Your task to perform on an android device: check google app version Image 0: 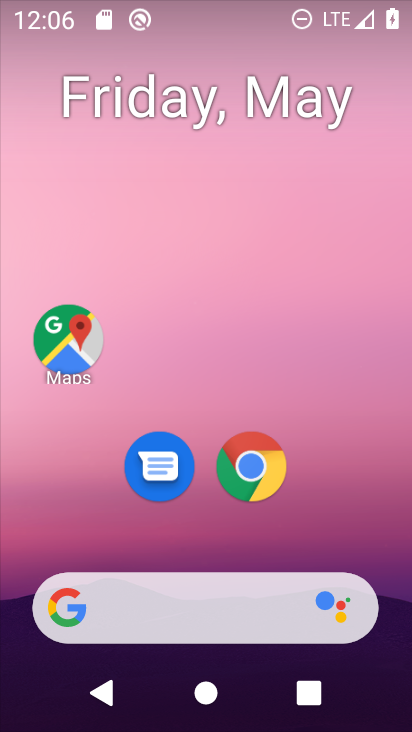
Step 0: drag from (230, 600) to (290, 85)
Your task to perform on an android device: check google app version Image 1: 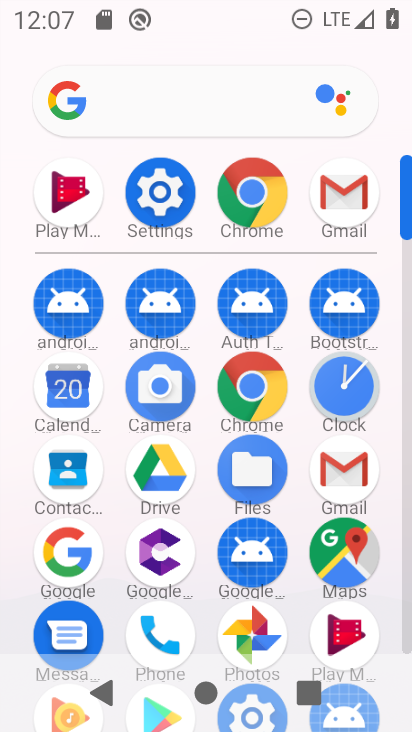
Step 1: click (260, 391)
Your task to perform on an android device: check google app version Image 2: 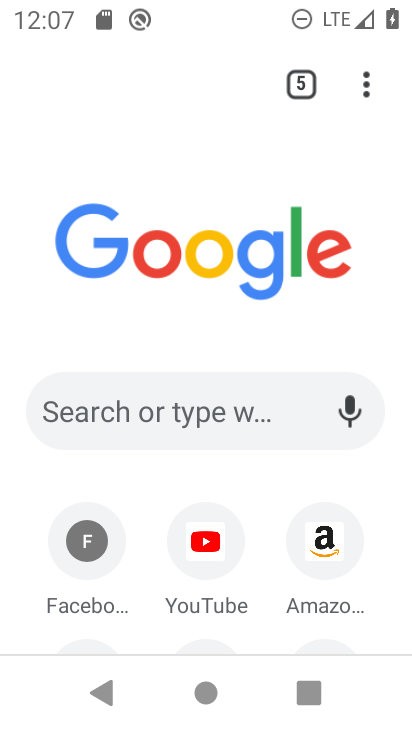
Step 2: click (374, 88)
Your task to perform on an android device: check google app version Image 3: 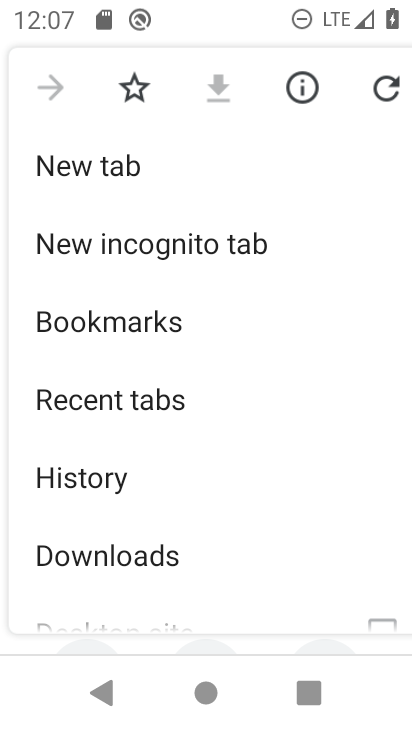
Step 3: drag from (317, 524) to (294, 59)
Your task to perform on an android device: check google app version Image 4: 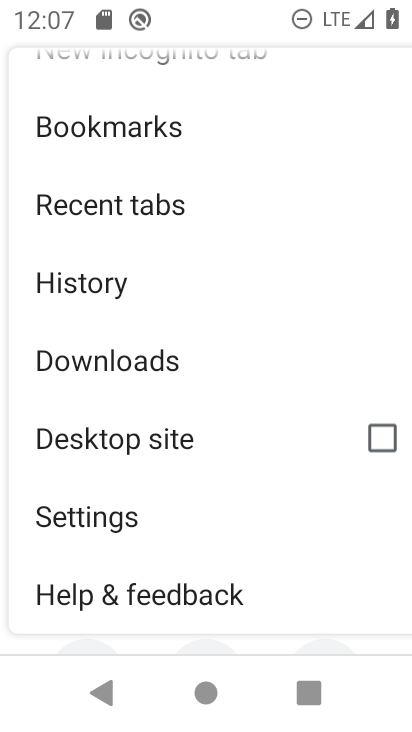
Step 4: click (222, 597)
Your task to perform on an android device: check google app version Image 5: 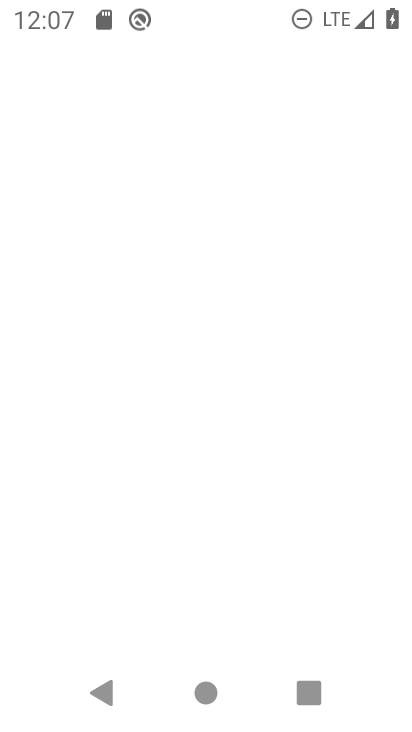
Step 5: click (362, 91)
Your task to perform on an android device: check google app version Image 6: 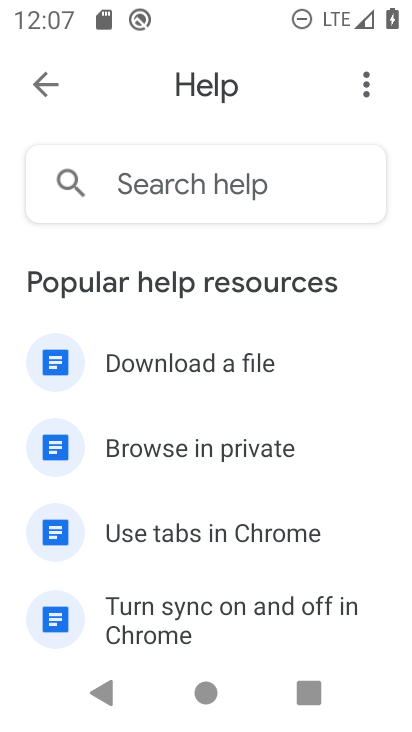
Step 6: click (355, 93)
Your task to perform on an android device: check google app version Image 7: 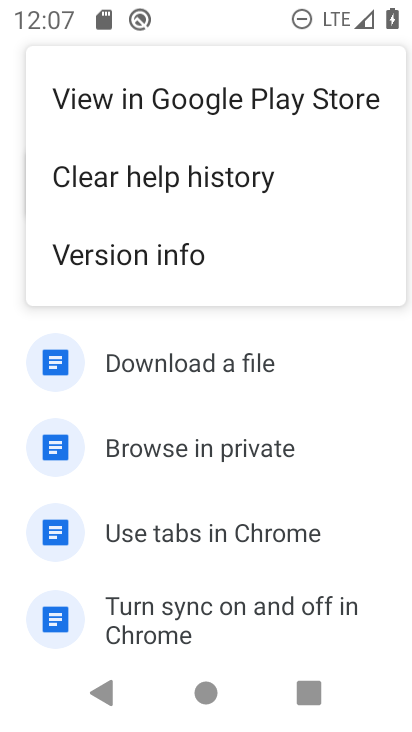
Step 7: click (276, 262)
Your task to perform on an android device: check google app version Image 8: 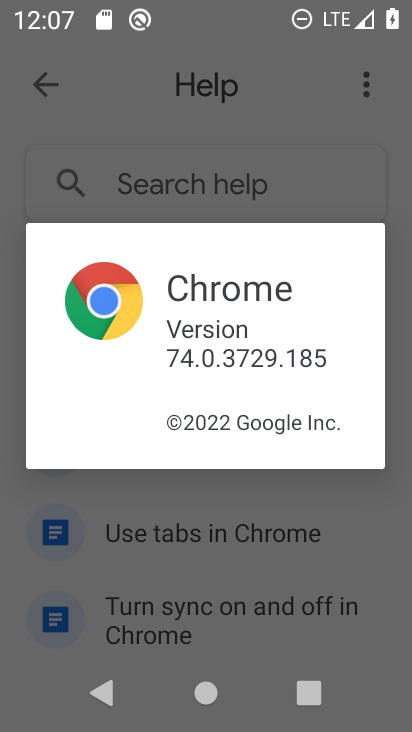
Step 8: task complete